Your task to perform on an android device: open wifi settings Image 0: 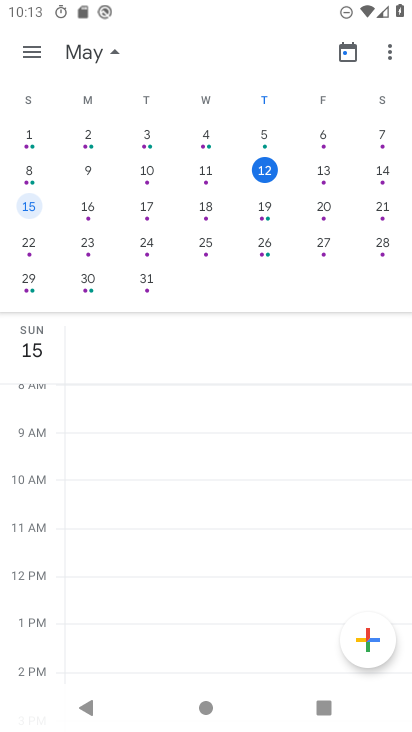
Step 0: press home button
Your task to perform on an android device: open wifi settings Image 1: 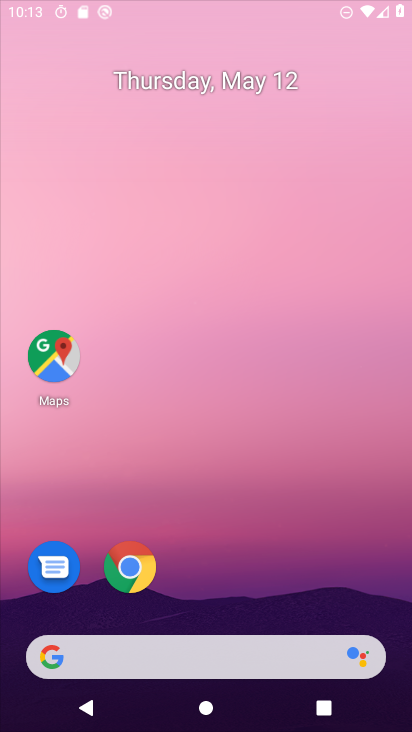
Step 1: drag from (231, 608) to (302, 28)
Your task to perform on an android device: open wifi settings Image 2: 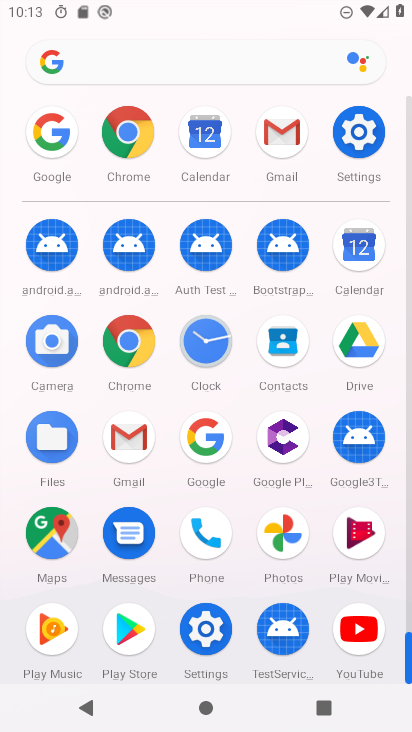
Step 2: click (369, 133)
Your task to perform on an android device: open wifi settings Image 3: 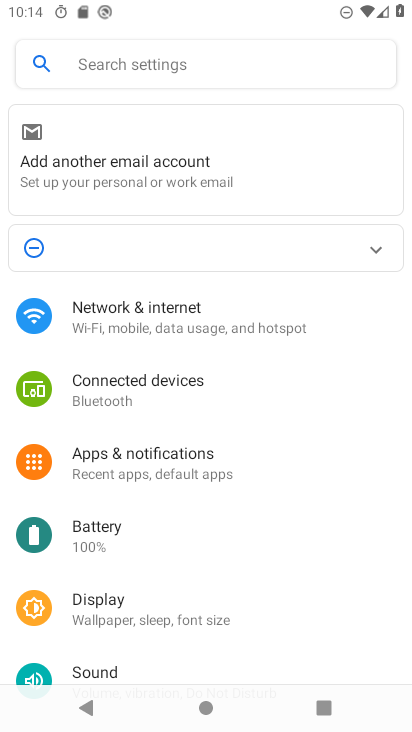
Step 3: click (208, 331)
Your task to perform on an android device: open wifi settings Image 4: 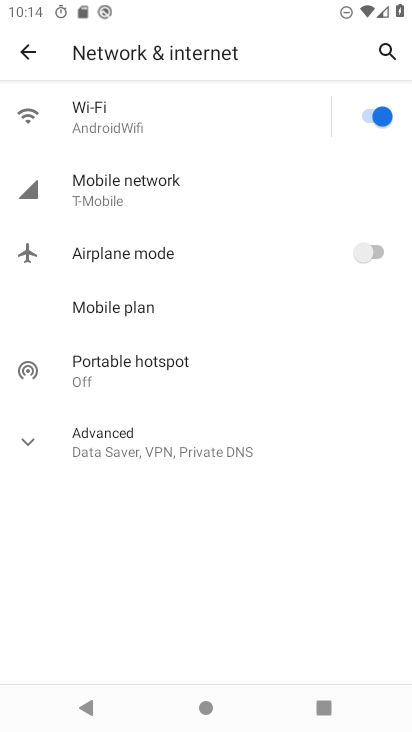
Step 4: click (162, 137)
Your task to perform on an android device: open wifi settings Image 5: 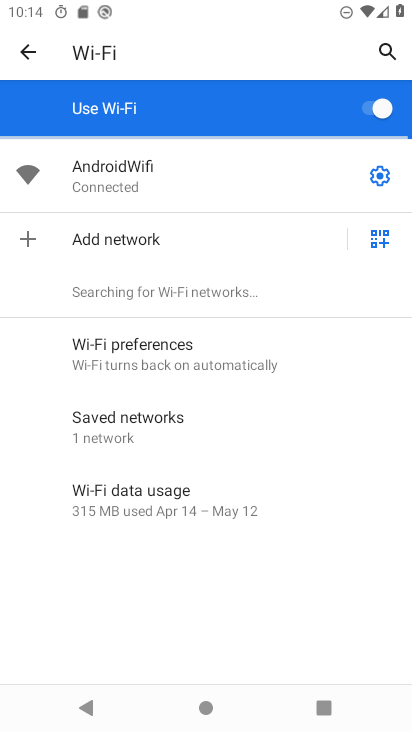
Step 5: task complete